Your task to perform on an android device: Search for Mexican restaurants on Maps Image 0: 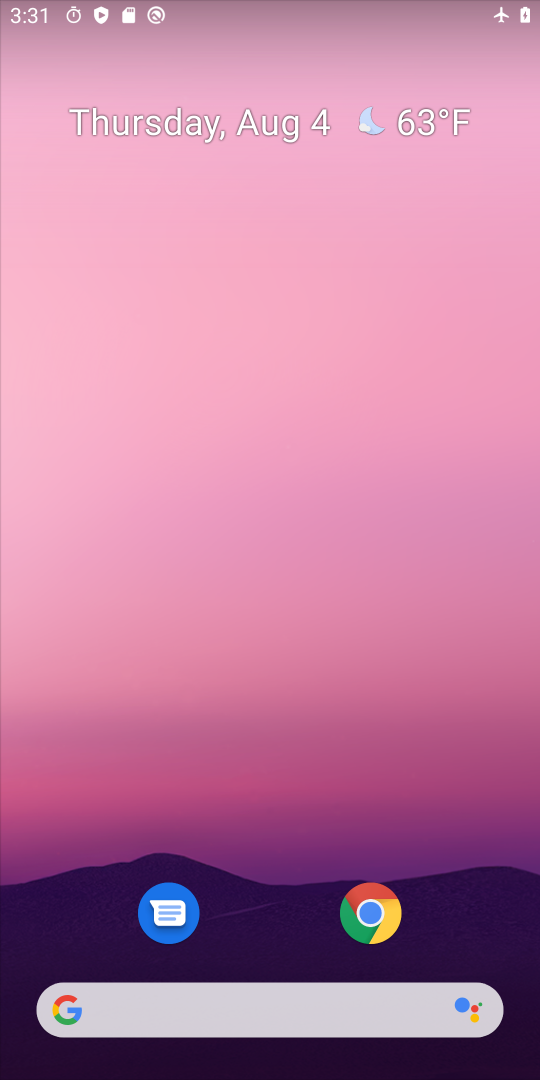
Step 0: drag from (220, 817) to (242, 40)
Your task to perform on an android device: Search for Mexican restaurants on Maps Image 1: 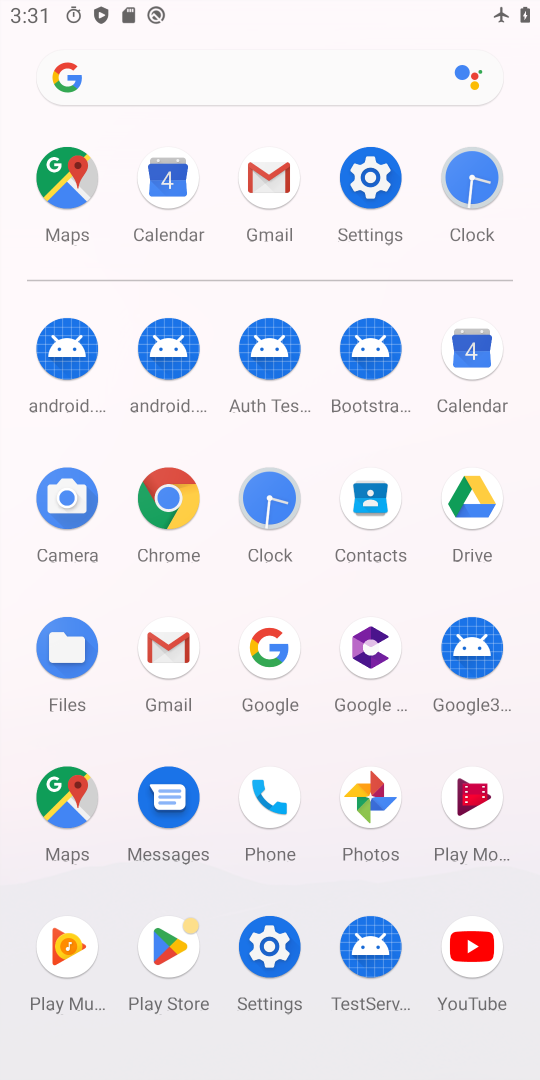
Step 1: click (70, 791)
Your task to perform on an android device: Search for Mexican restaurants on Maps Image 2: 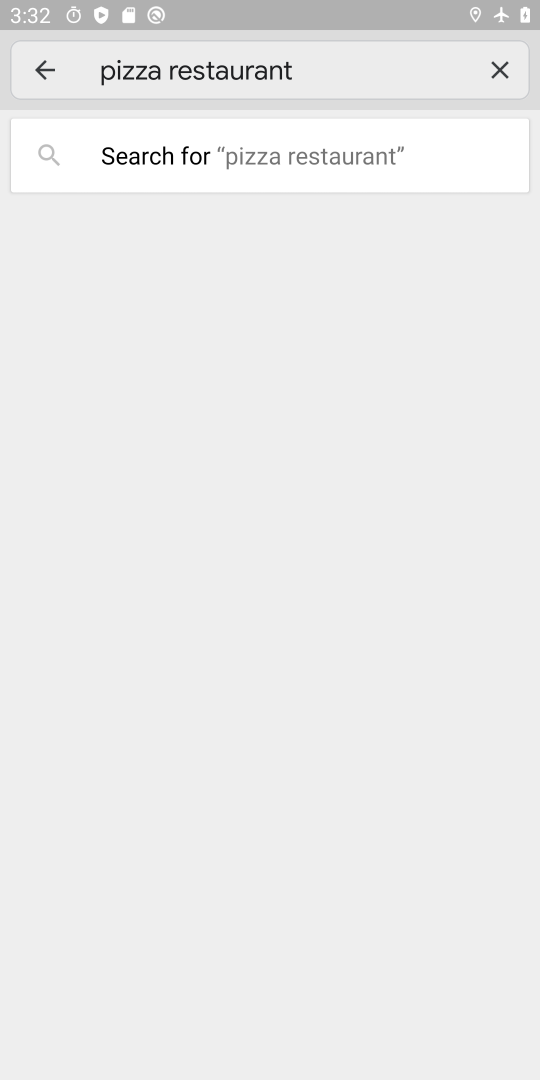
Step 2: click (509, 60)
Your task to perform on an android device: Search for Mexican restaurants on Maps Image 3: 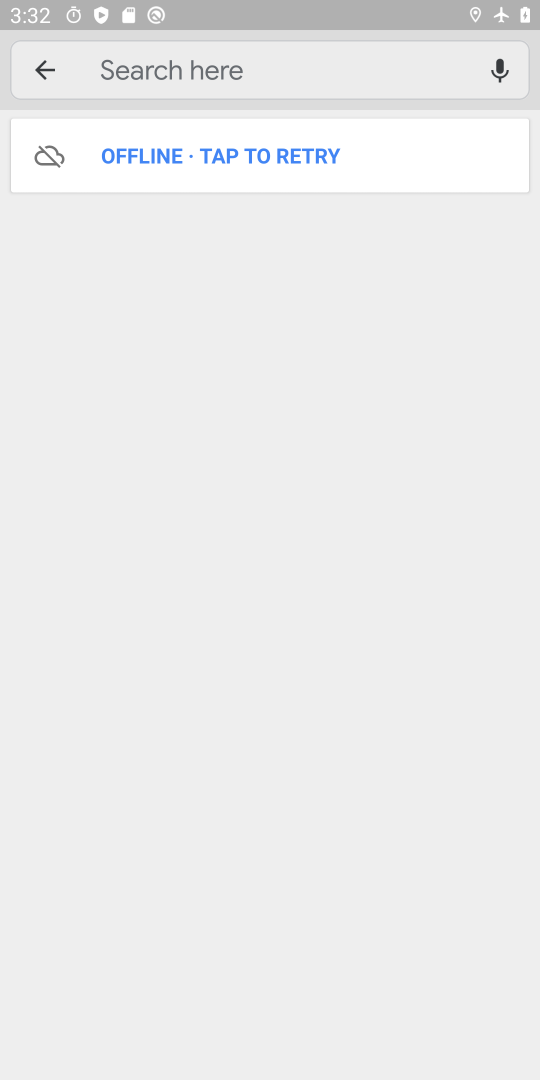
Step 3: task complete